Your task to perform on an android device: When is my next meeting? Image 0: 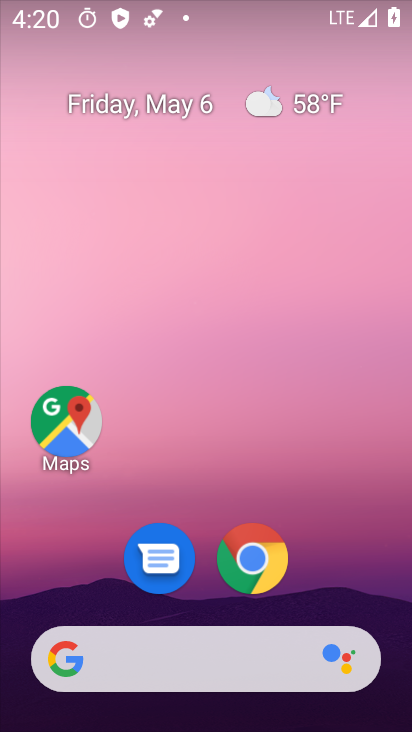
Step 0: drag from (297, 645) to (284, 63)
Your task to perform on an android device: When is my next meeting? Image 1: 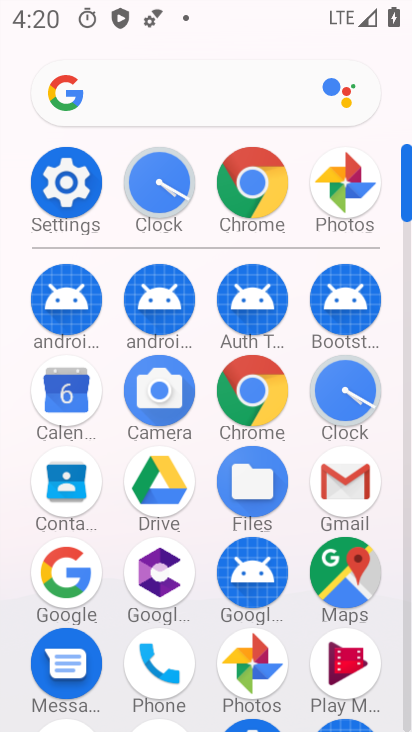
Step 1: click (63, 407)
Your task to perform on an android device: When is my next meeting? Image 2: 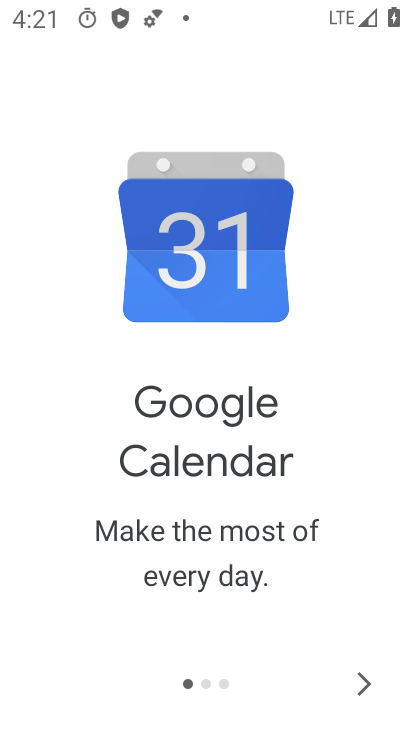
Step 2: click (362, 682)
Your task to perform on an android device: When is my next meeting? Image 3: 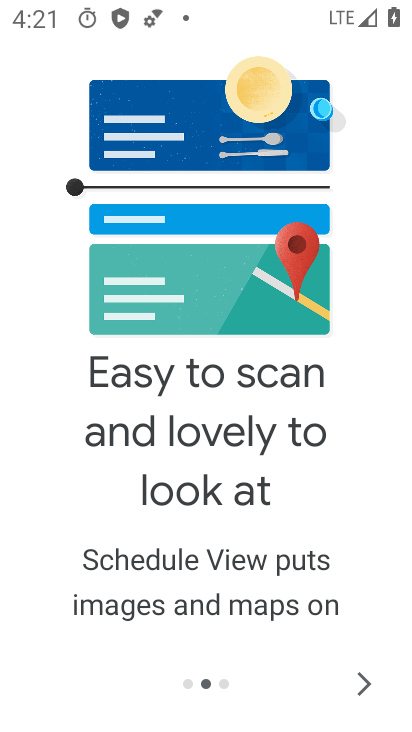
Step 3: click (362, 681)
Your task to perform on an android device: When is my next meeting? Image 4: 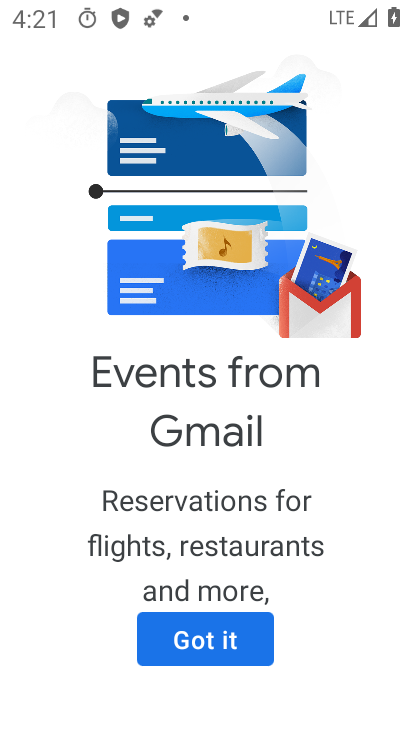
Step 4: click (238, 651)
Your task to perform on an android device: When is my next meeting? Image 5: 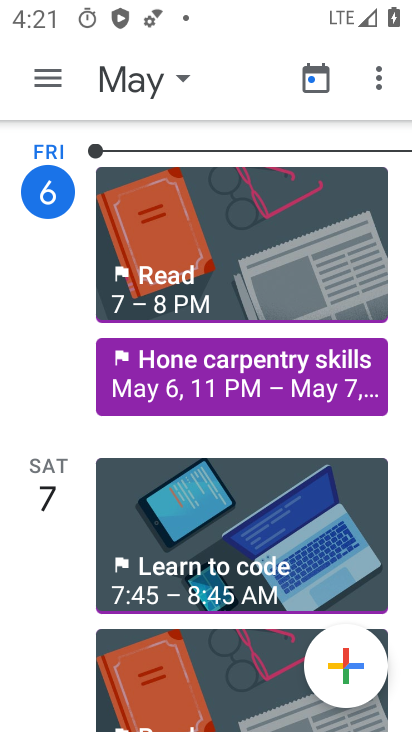
Step 5: click (200, 60)
Your task to perform on an android device: When is my next meeting? Image 6: 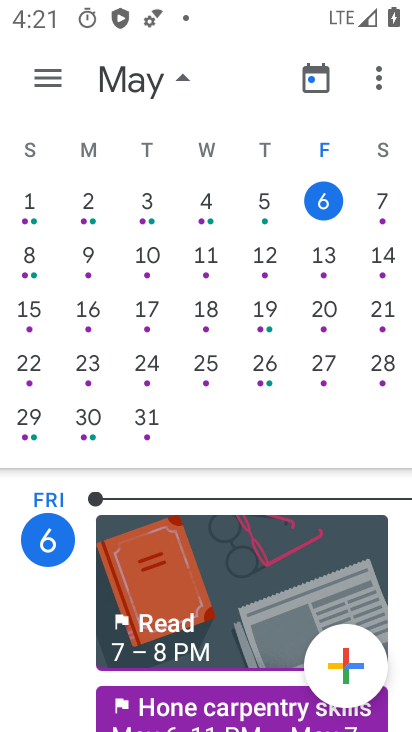
Step 6: drag from (370, 318) to (67, 333)
Your task to perform on an android device: When is my next meeting? Image 7: 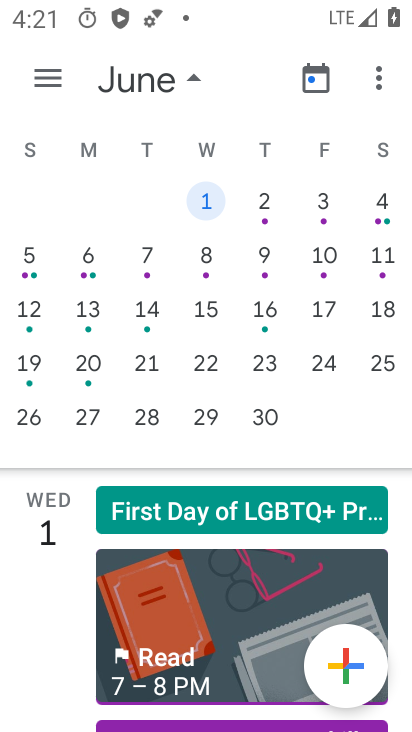
Step 7: drag from (142, 311) to (363, 287)
Your task to perform on an android device: When is my next meeting? Image 8: 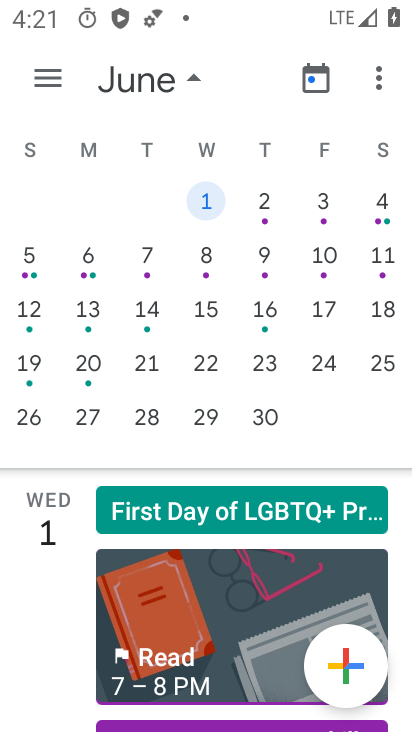
Step 8: click (47, 71)
Your task to perform on an android device: When is my next meeting? Image 9: 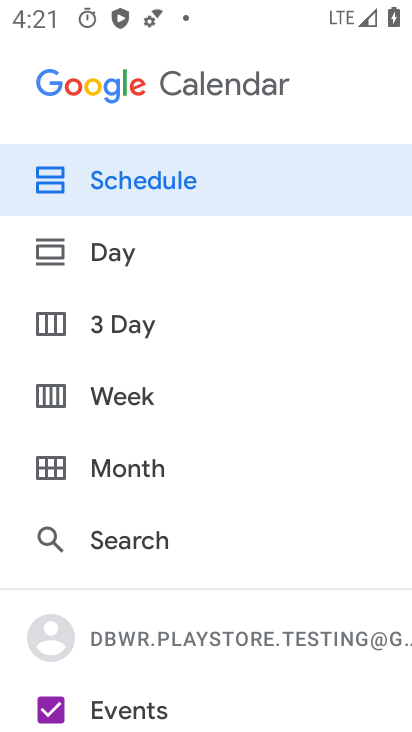
Step 9: task complete